Your task to perform on an android device: toggle airplane mode Image 0: 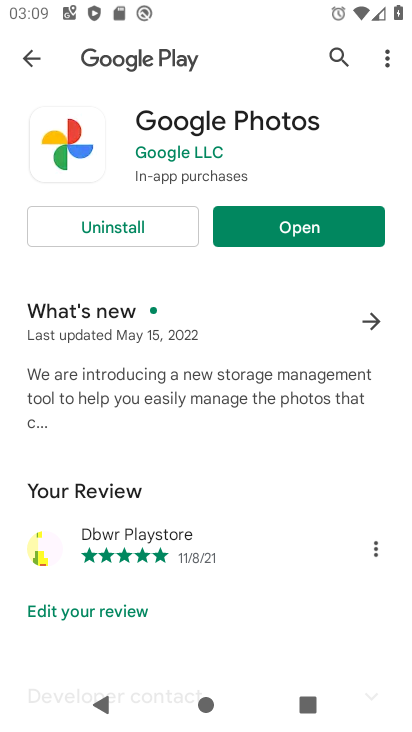
Step 0: press home button
Your task to perform on an android device: toggle airplane mode Image 1: 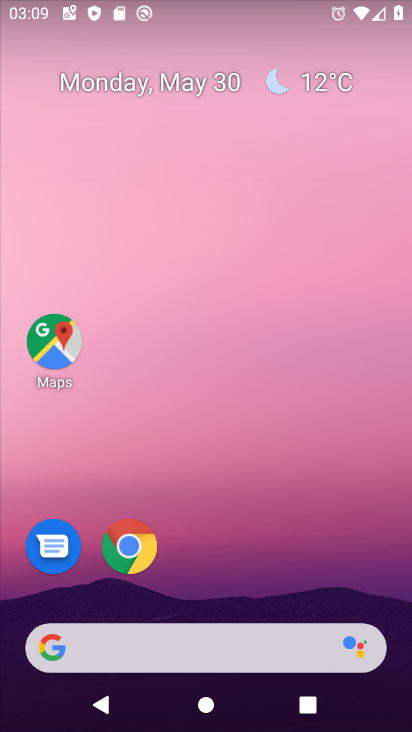
Step 1: drag from (241, 9) to (293, 577)
Your task to perform on an android device: toggle airplane mode Image 2: 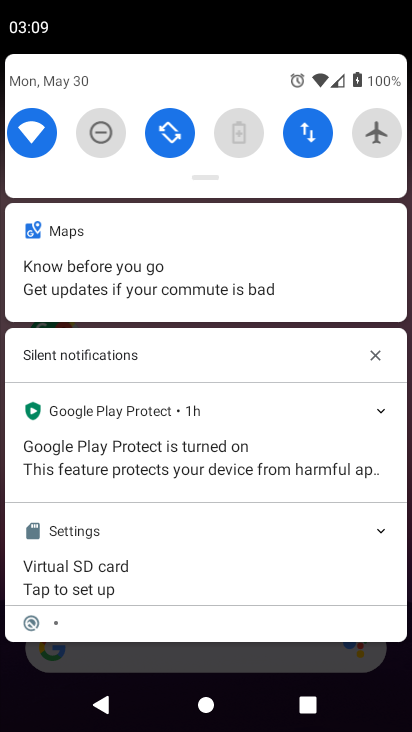
Step 2: click (374, 123)
Your task to perform on an android device: toggle airplane mode Image 3: 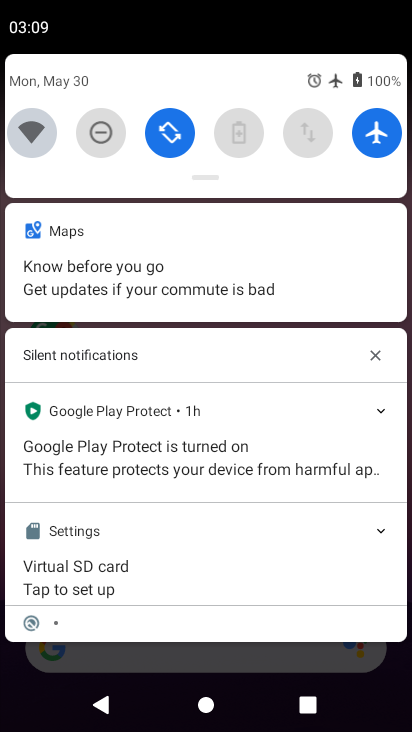
Step 3: task complete